Your task to perform on an android device: show emergency info Image 0: 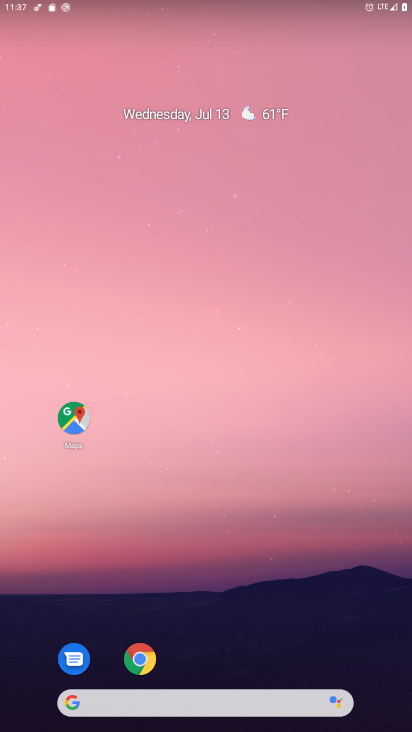
Step 0: drag from (202, 515) to (193, 98)
Your task to perform on an android device: show emergency info Image 1: 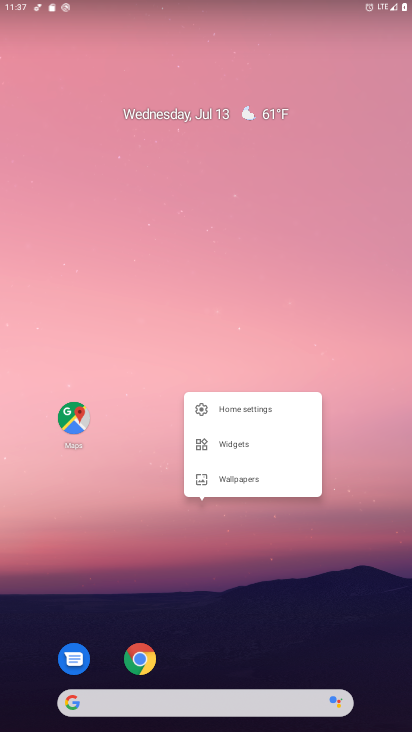
Step 1: click (206, 647)
Your task to perform on an android device: show emergency info Image 2: 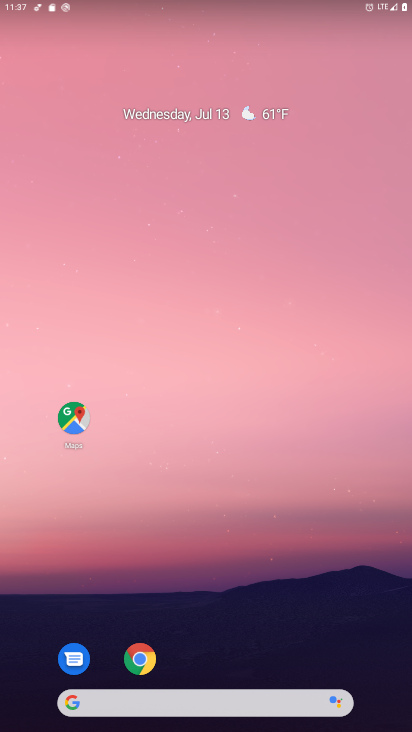
Step 2: drag from (226, 656) to (221, 153)
Your task to perform on an android device: show emergency info Image 3: 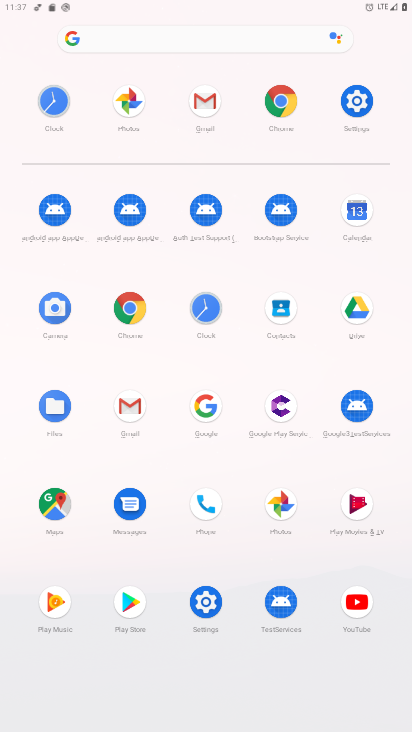
Step 3: click (205, 601)
Your task to perform on an android device: show emergency info Image 4: 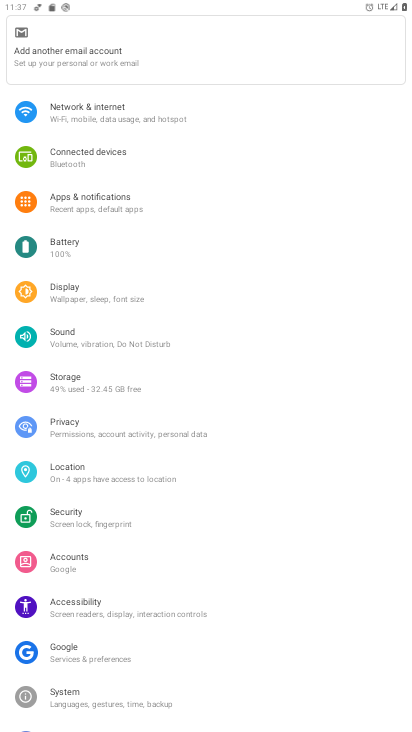
Step 4: drag from (131, 690) to (156, 306)
Your task to perform on an android device: show emergency info Image 5: 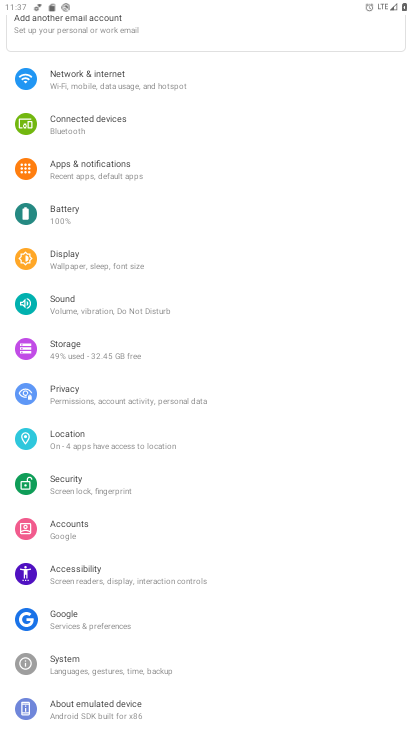
Step 5: click (153, 705)
Your task to perform on an android device: show emergency info Image 6: 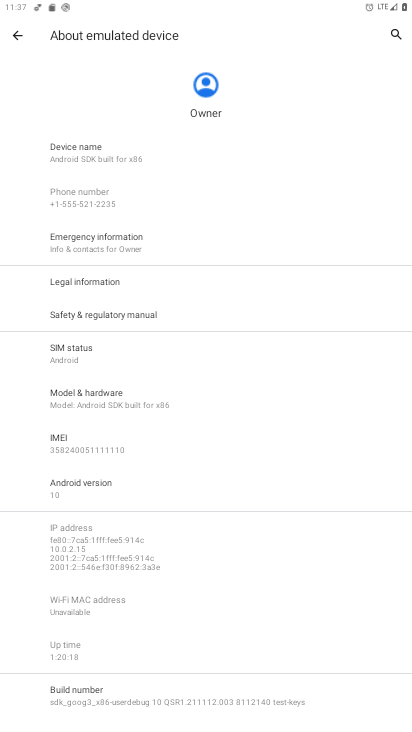
Step 6: click (150, 248)
Your task to perform on an android device: show emergency info Image 7: 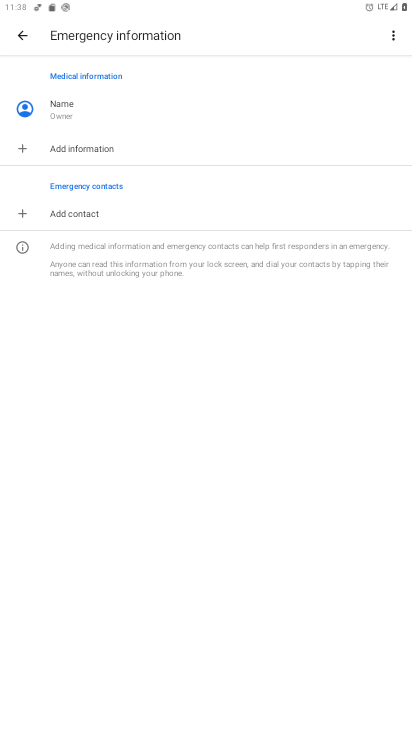
Step 7: task complete